Your task to perform on an android device: Open Chrome and go to settings Image 0: 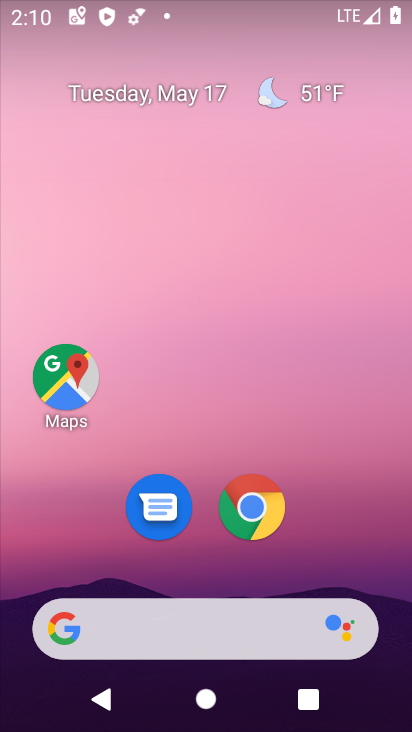
Step 0: click (243, 515)
Your task to perform on an android device: Open Chrome and go to settings Image 1: 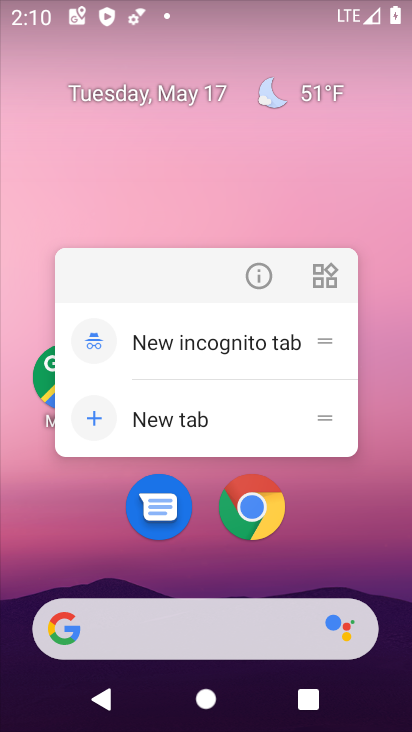
Step 1: click (241, 509)
Your task to perform on an android device: Open Chrome and go to settings Image 2: 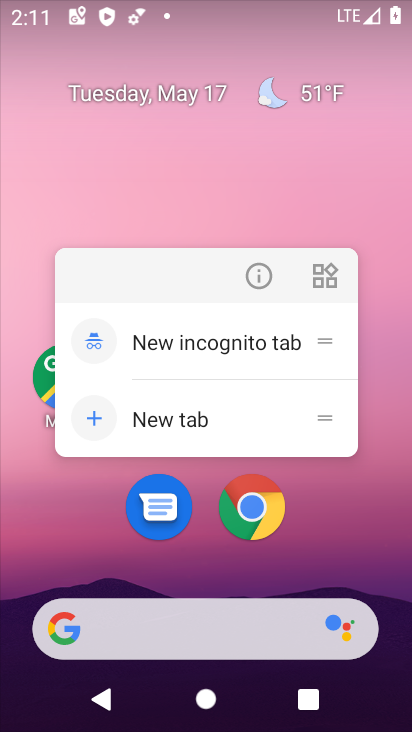
Step 2: click (241, 508)
Your task to perform on an android device: Open Chrome and go to settings Image 3: 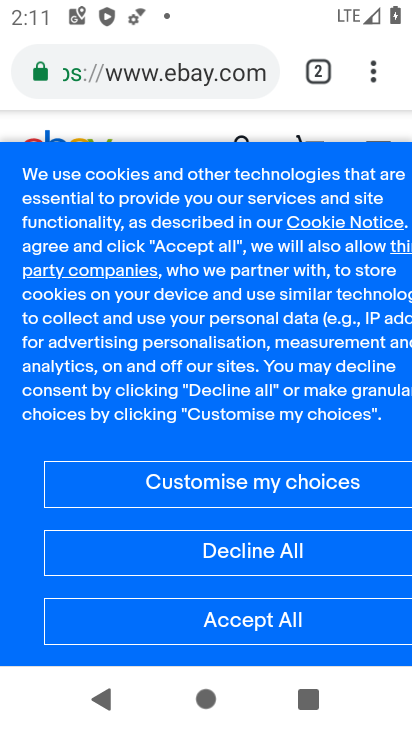
Step 3: click (382, 86)
Your task to perform on an android device: Open Chrome and go to settings Image 4: 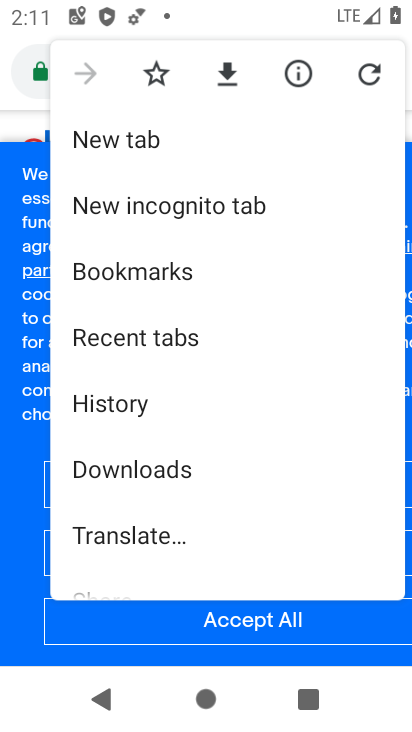
Step 4: drag from (242, 474) to (270, 193)
Your task to perform on an android device: Open Chrome and go to settings Image 5: 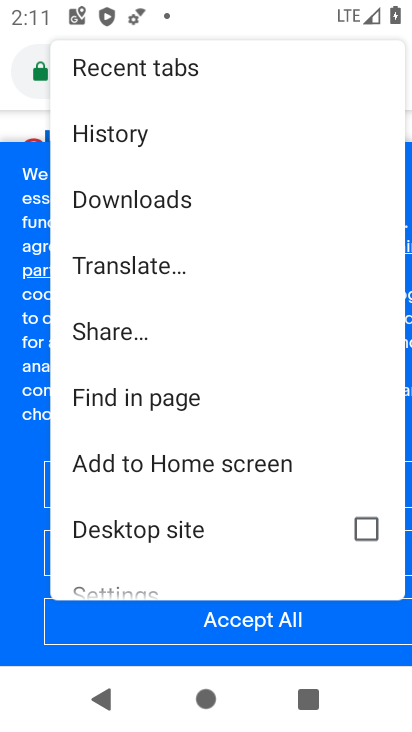
Step 5: drag from (217, 514) to (201, 242)
Your task to perform on an android device: Open Chrome and go to settings Image 6: 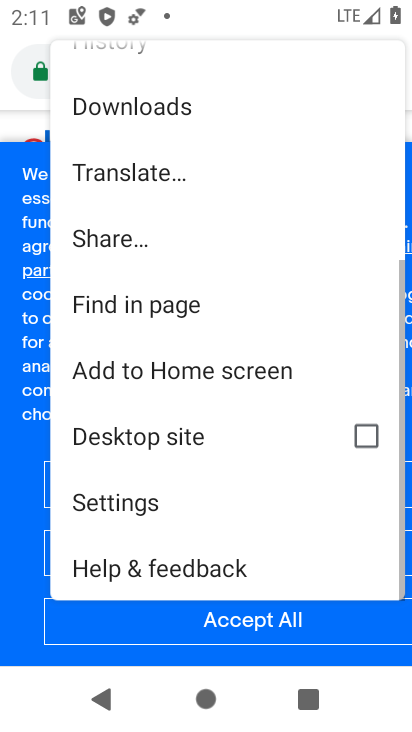
Step 6: click (121, 488)
Your task to perform on an android device: Open Chrome and go to settings Image 7: 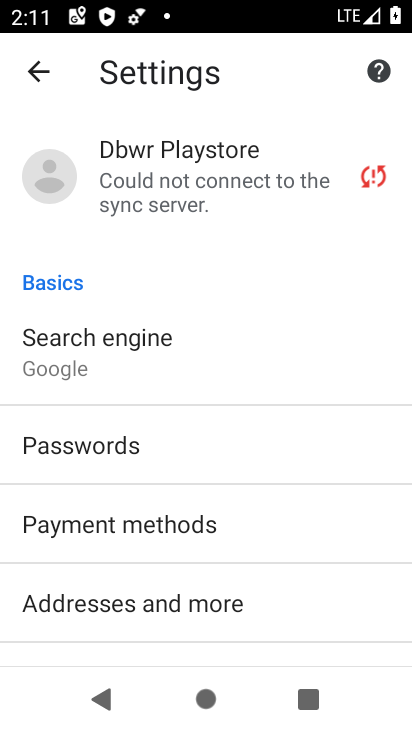
Step 7: task complete